Your task to perform on an android device: Play the new Taylor Swift video on YouTube Image 0: 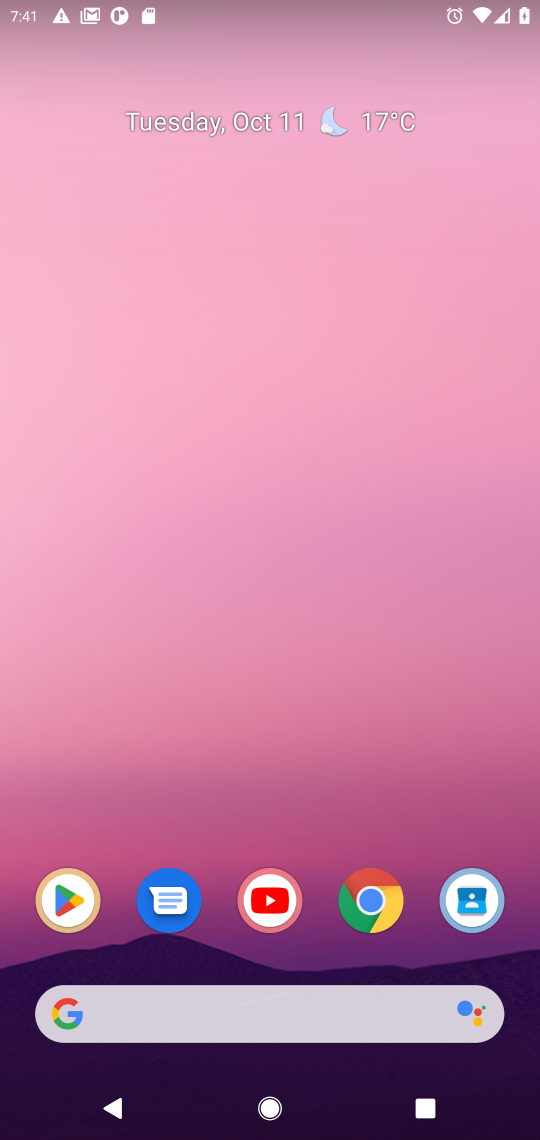
Step 0: click (266, 903)
Your task to perform on an android device: Play the new Taylor Swift video on YouTube Image 1: 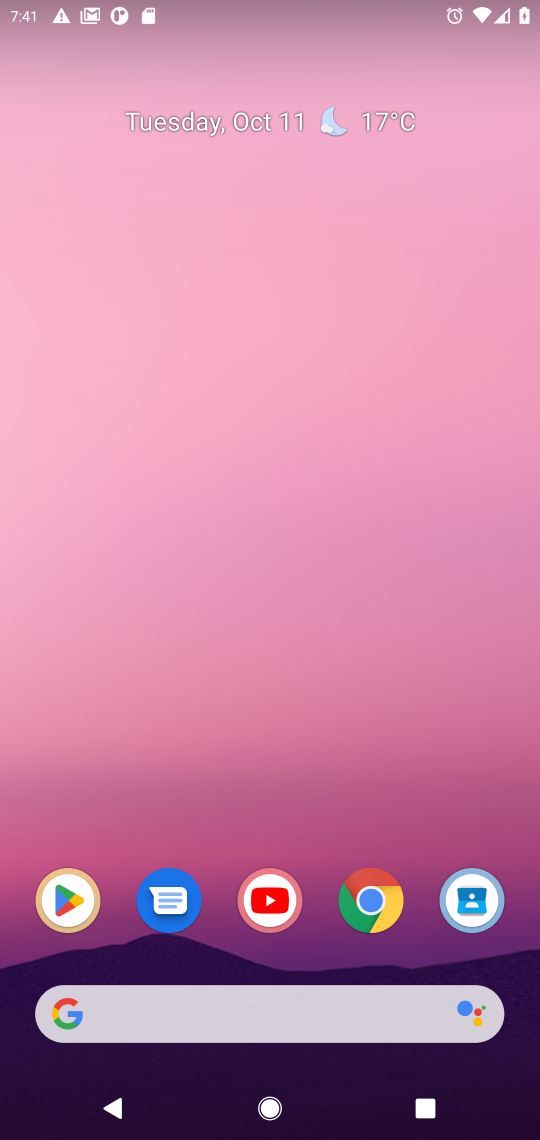
Step 1: click (260, 902)
Your task to perform on an android device: Play the new Taylor Swift video on YouTube Image 2: 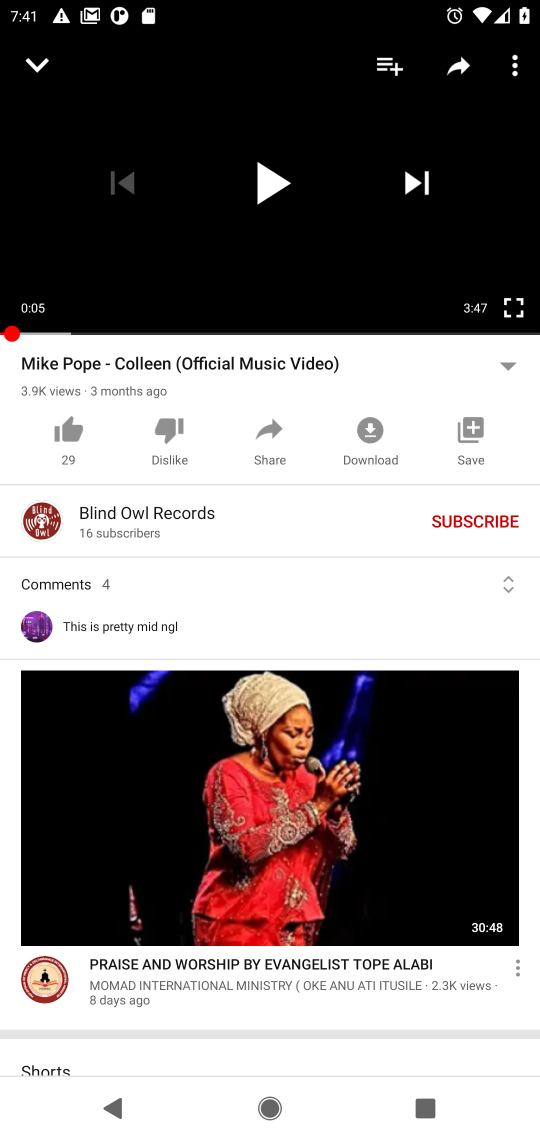
Step 2: press back button
Your task to perform on an android device: Play the new Taylor Swift video on YouTube Image 3: 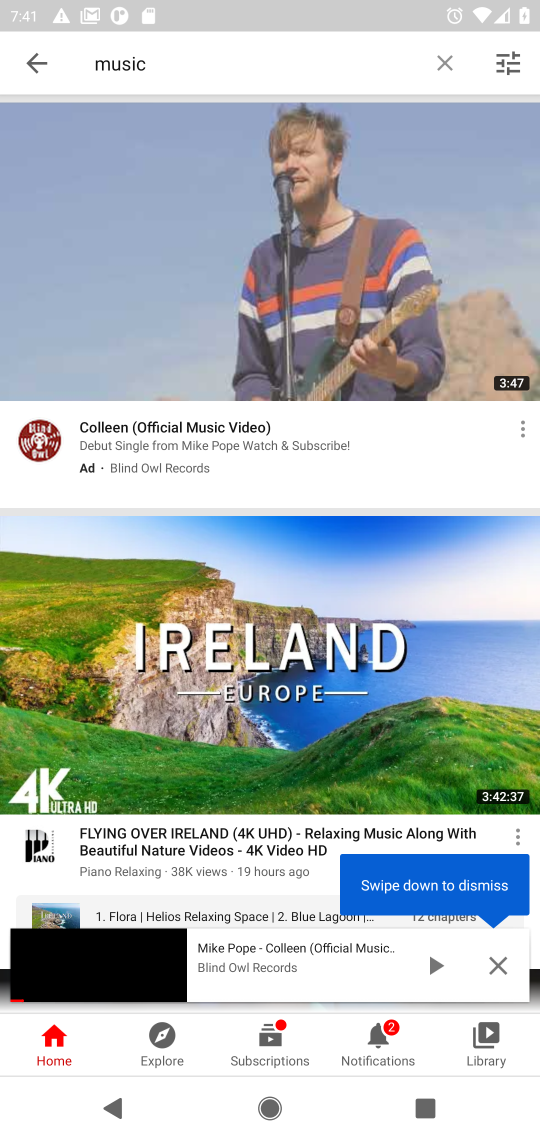
Step 3: click (437, 54)
Your task to perform on an android device: Play the new Taylor Swift video on YouTube Image 4: 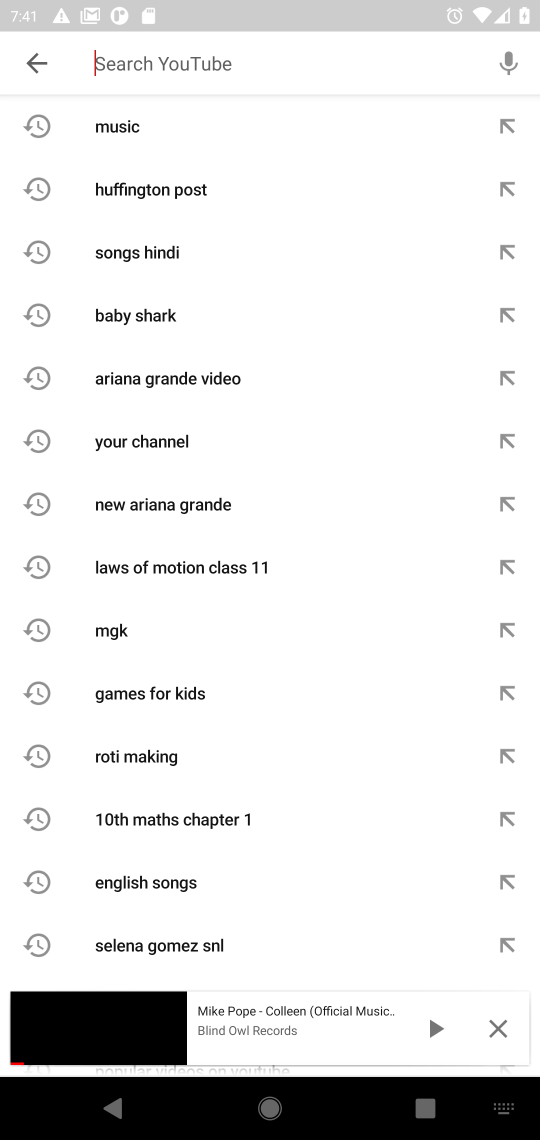
Step 4: click (501, 1032)
Your task to perform on an android device: Play the new Taylor Swift video on YouTube Image 5: 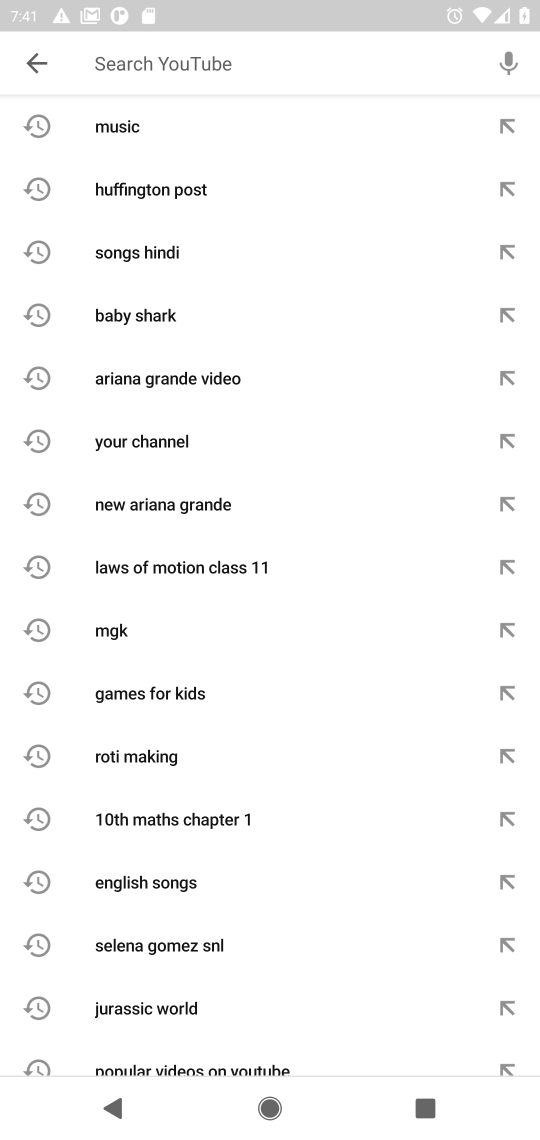
Step 5: click (105, 51)
Your task to perform on an android device: Play the new Taylor Swift video on YouTube Image 6: 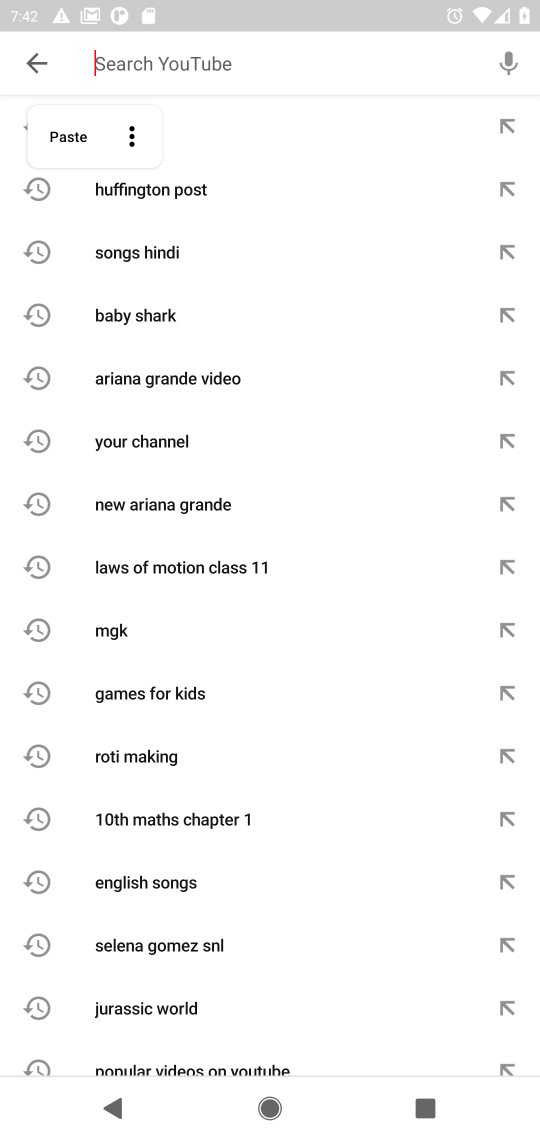
Step 6: type " new Taylor Swift video"
Your task to perform on an android device: Play the new Taylor Swift video on YouTube Image 7: 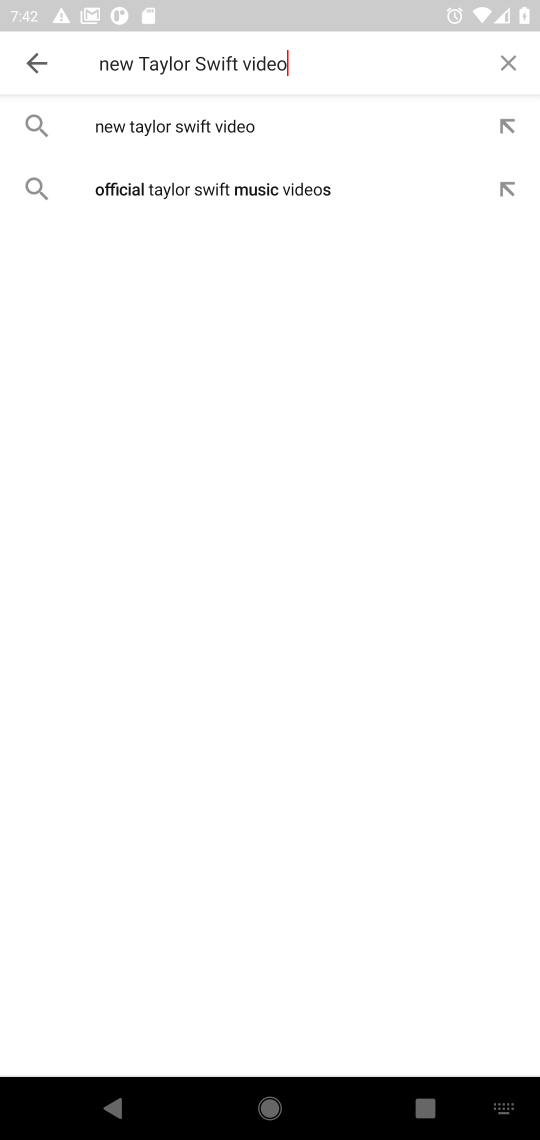
Step 7: press enter
Your task to perform on an android device: Play the new Taylor Swift video on YouTube Image 8: 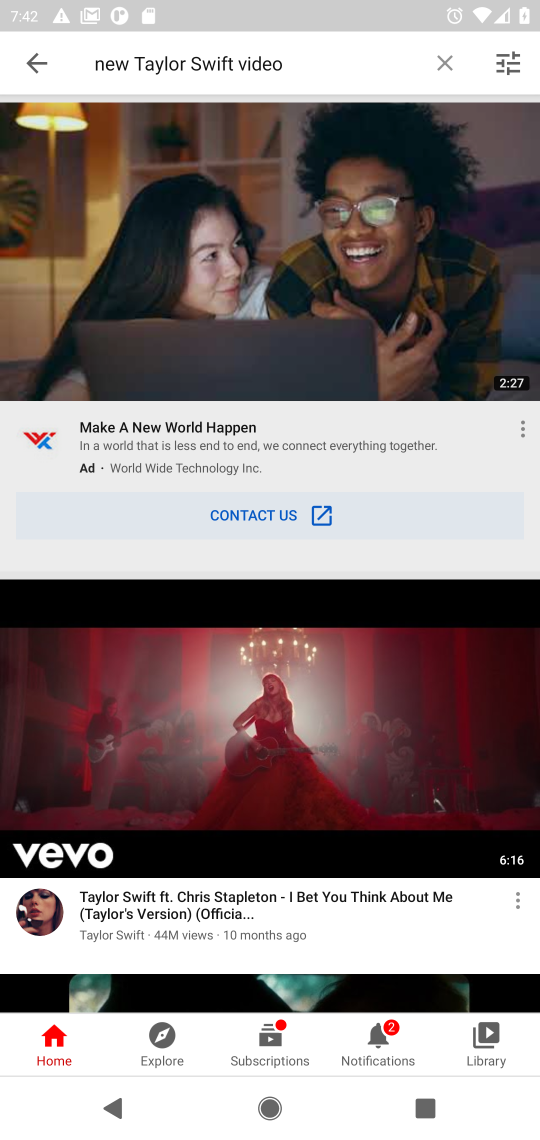
Step 8: drag from (241, 699) to (416, 271)
Your task to perform on an android device: Play the new Taylor Swift video on YouTube Image 9: 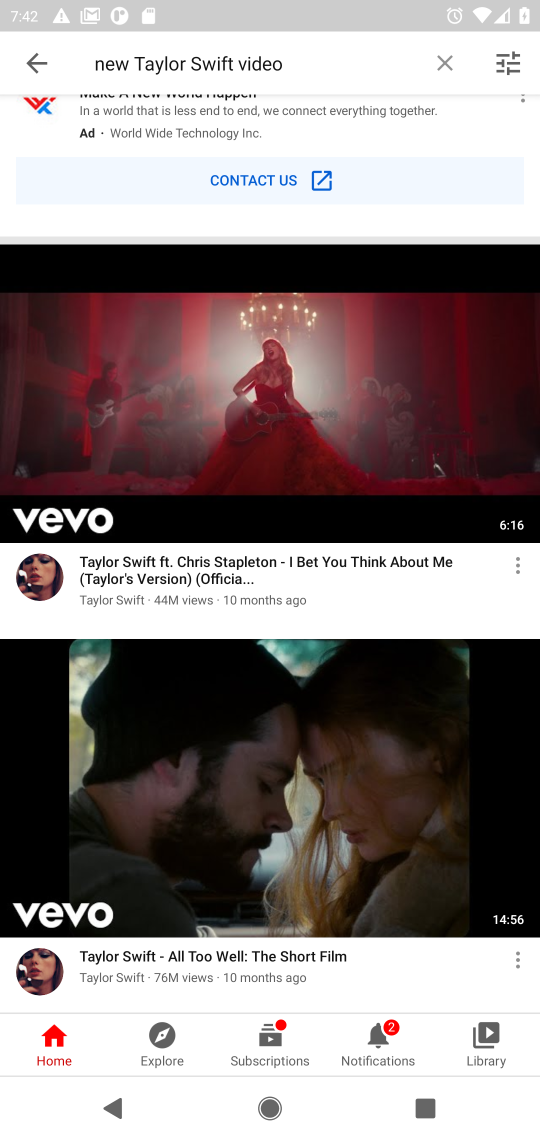
Step 9: click (257, 382)
Your task to perform on an android device: Play the new Taylor Swift video on YouTube Image 10: 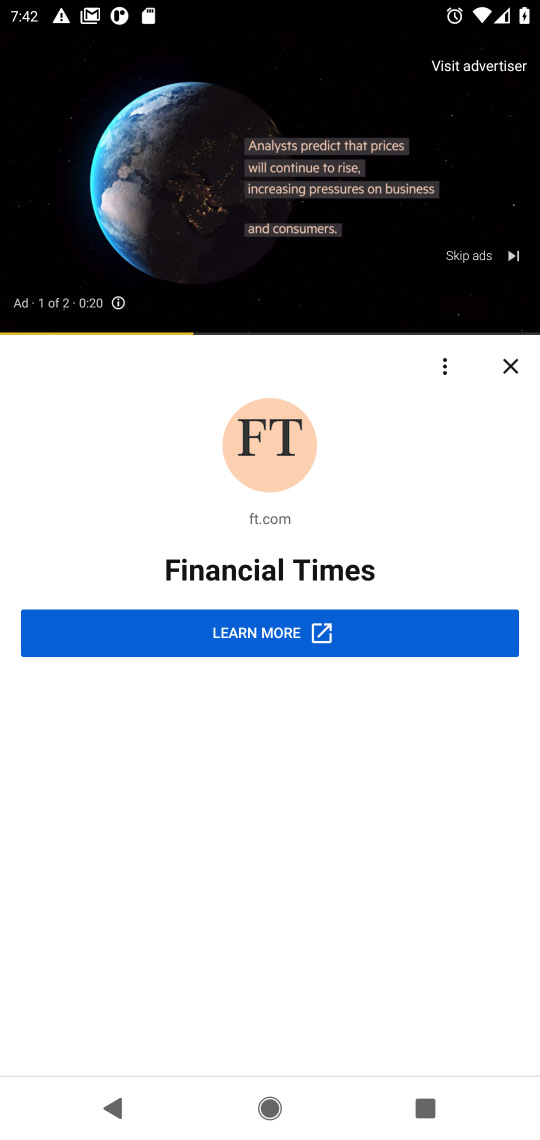
Step 10: click (462, 249)
Your task to perform on an android device: Play the new Taylor Swift video on YouTube Image 11: 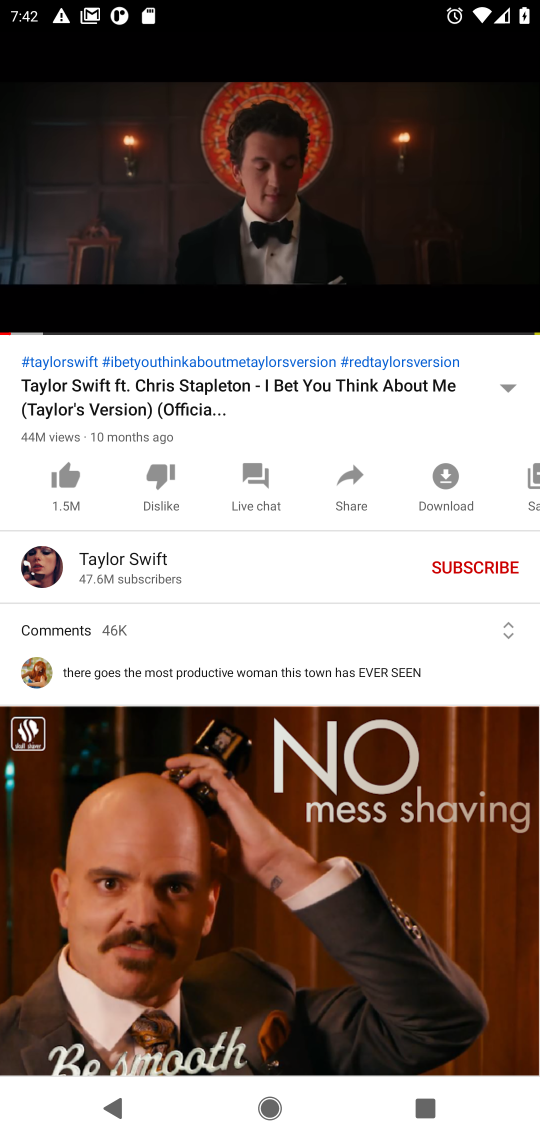
Step 11: click (273, 189)
Your task to perform on an android device: Play the new Taylor Swift video on YouTube Image 12: 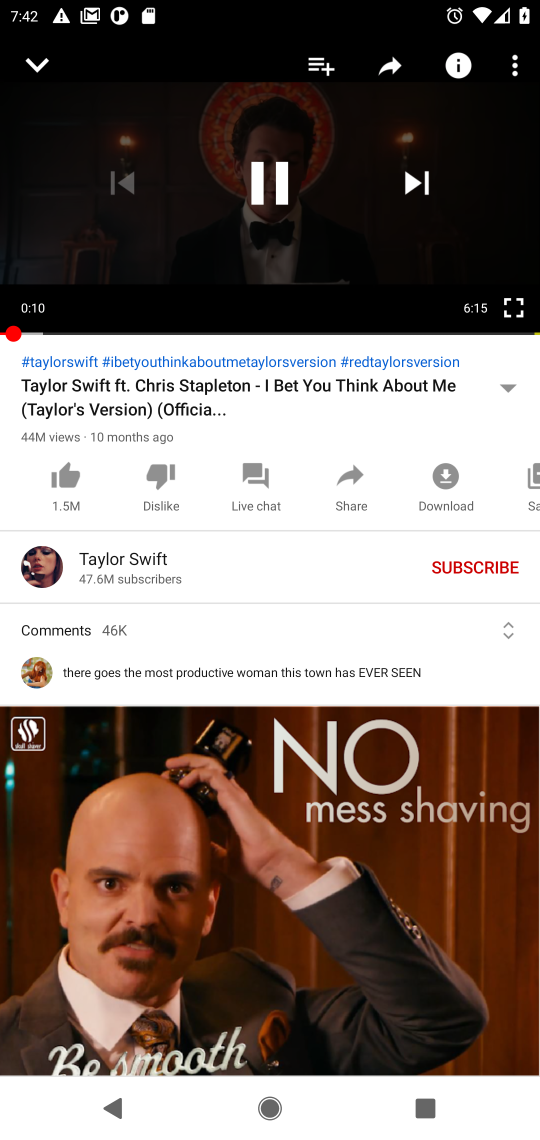
Step 12: click (273, 188)
Your task to perform on an android device: Play the new Taylor Swift video on YouTube Image 13: 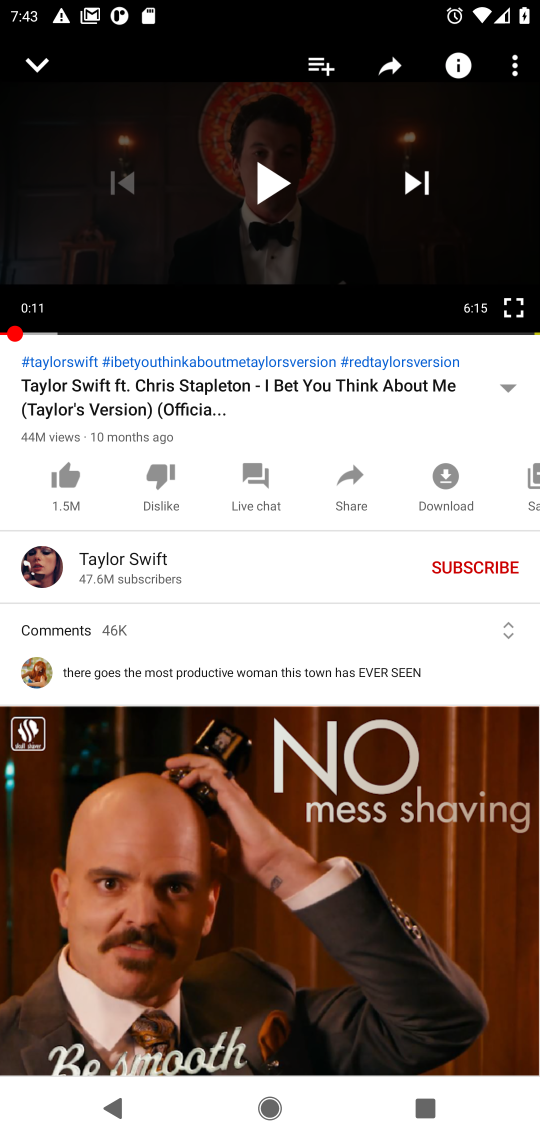
Step 13: task complete